Your task to perform on an android device: Open the stopwatch Image 0: 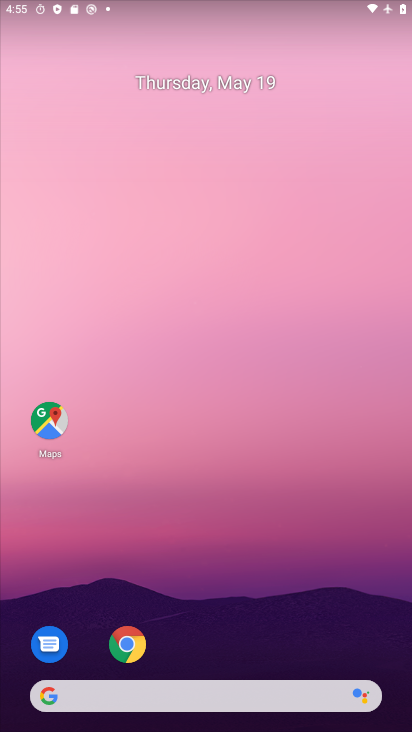
Step 0: drag from (212, 614) to (219, 238)
Your task to perform on an android device: Open the stopwatch Image 1: 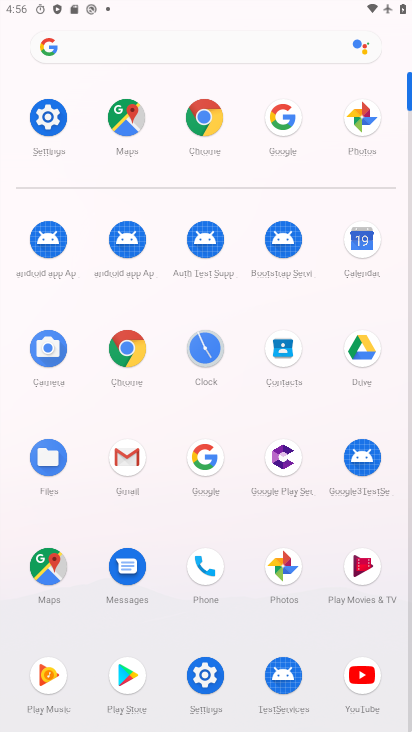
Step 1: click (204, 346)
Your task to perform on an android device: Open the stopwatch Image 2: 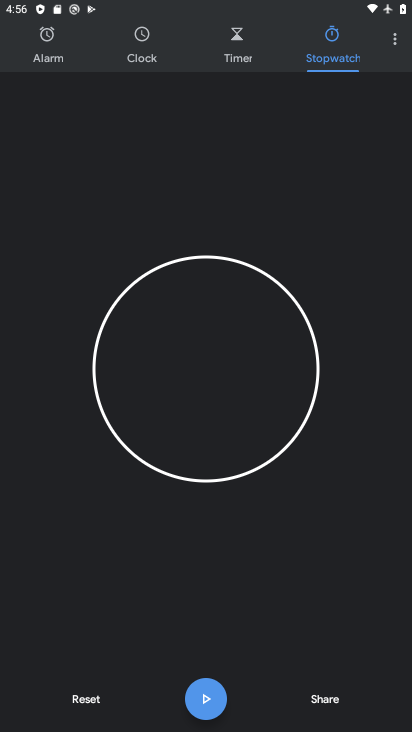
Step 2: click (203, 704)
Your task to perform on an android device: Open the stopwatch Image 3: 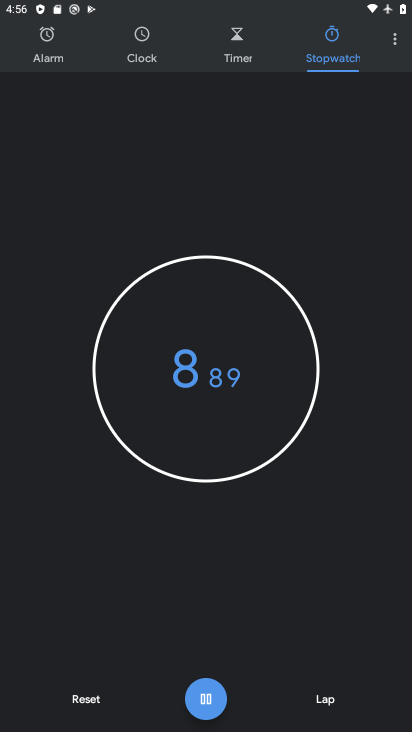
Step 3: click (202, 706)
Your task to perform on an android device: Open the stopwatch Image 4: 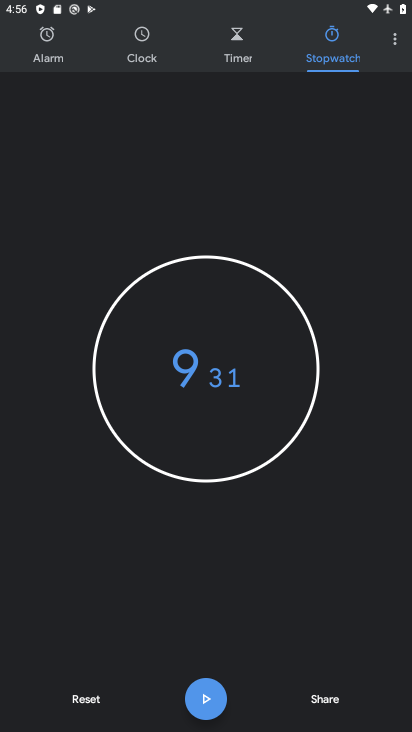
Step 4: task complete